Your task to perform on an android device: What's on my calendar tomorrow? Image 0: 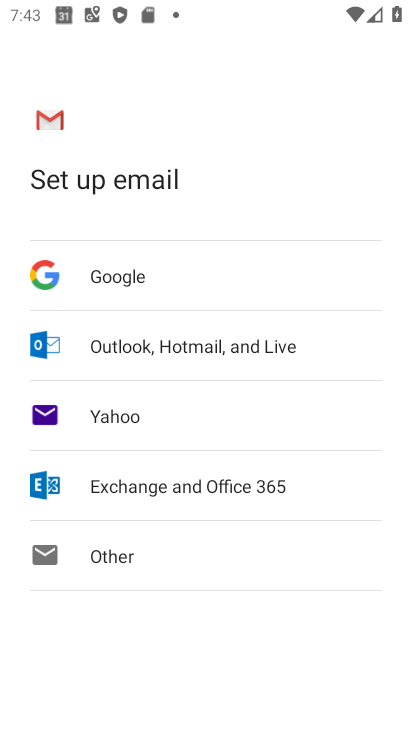
Step 0: press home button
Your task to perform on an android device: What's on my calendar tomorrow? Image 1: 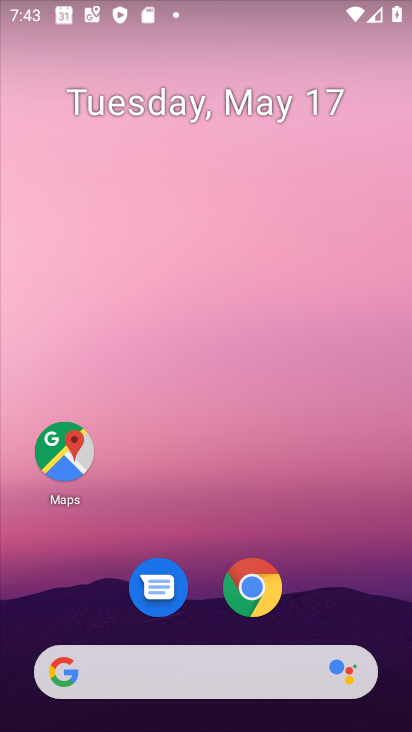
Step 1: drag from (229, 646) to (249, 330)
Your task to perform on an android device: What's on my calendar tomorrow? Image 2: 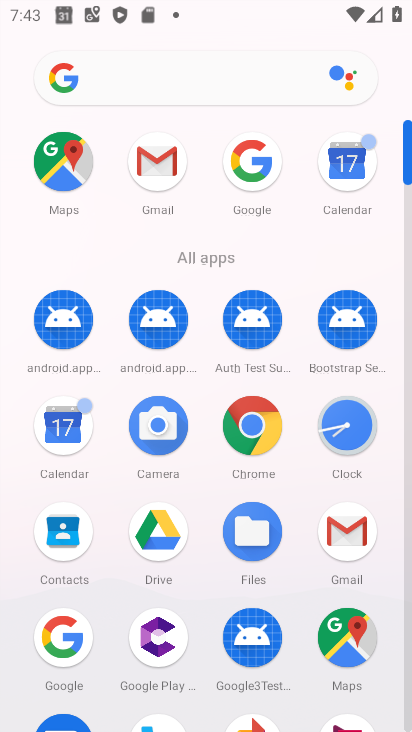
Step 2: click (329, 166)
Your task to perform on an android device: What's on my calendar tomorrow? Image 3: 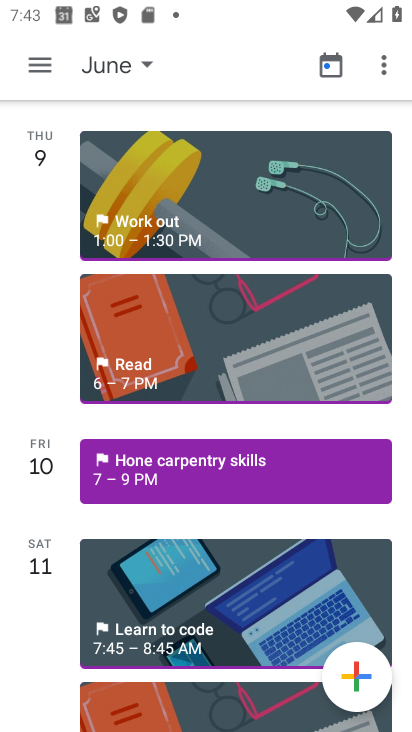
Step 3: click (102, 59)
Your task to perform on an android device: What's on my calendar tomorrow? Image 4: 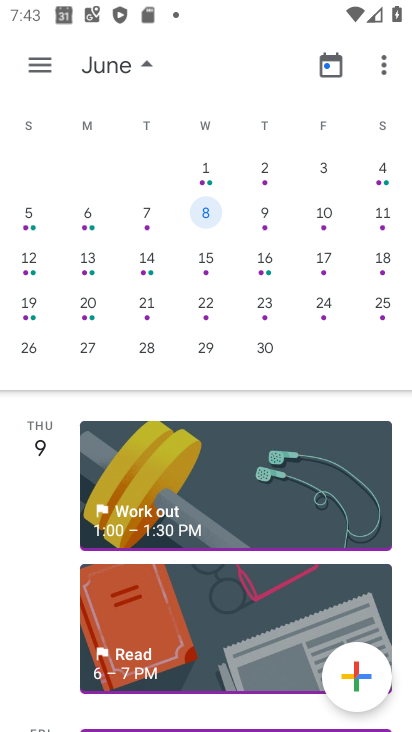
Step 4: drag from (158, 291) to (396, 296)
Your task to perform on an android device: What's on my calendar tomorrow? Image 5: 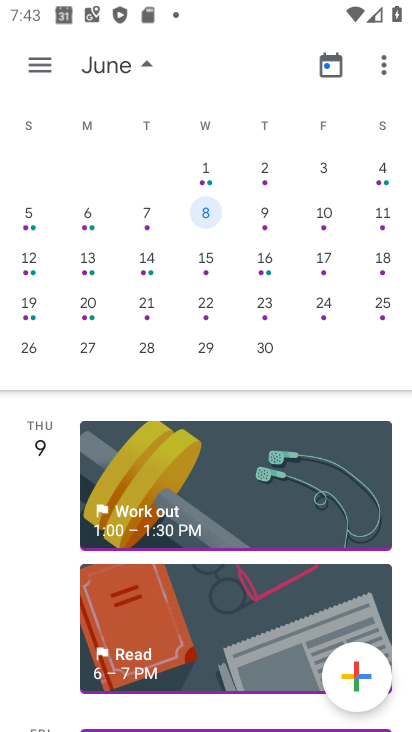
Step 5: drag from (193, 293) to (407, 297)
Your task to perform on an android device: What's on my calendar tomorrow? Image 6: 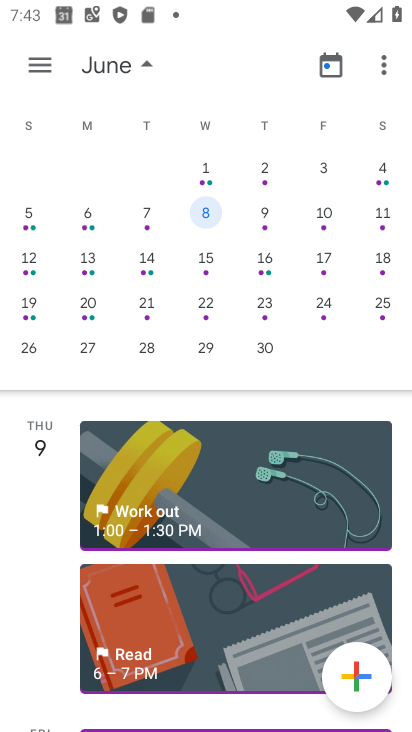
Step 6: drag from (66, 262) to (404, 263)
Your task to perform on an android device: What's on my calendar tomorrow? Image 7: 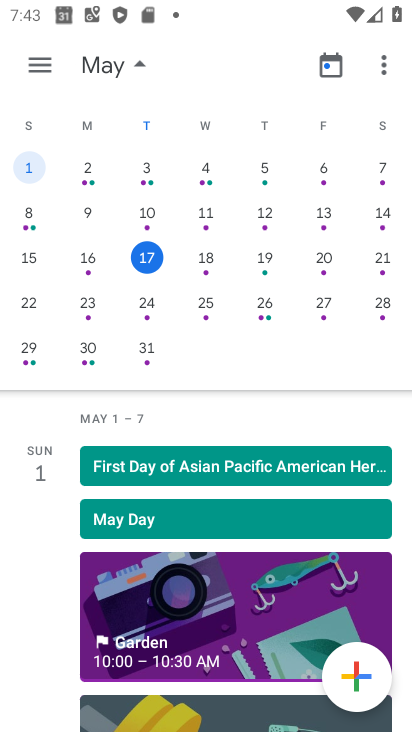
Step 7: drag from (245, 260) to (381, 254)
Your task to perform on an android device: What's on my calendar tomorrow? Image 8: 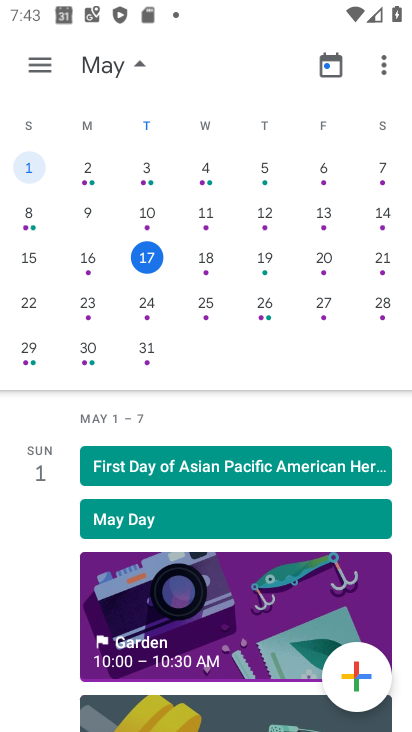
Step 8: click (264, 261)
Your task to perform on an android device: What's on my calendar tomorrow? Image 9: 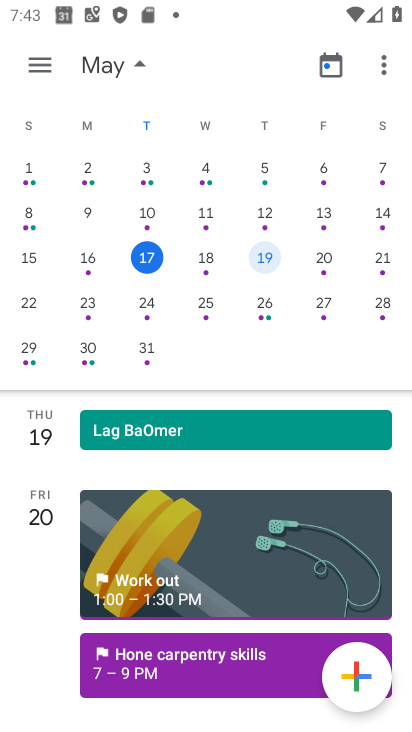
Step 9: click (113, 429)
Your task to perform on an android device: What's on my calendar tomorrow? Image 10: 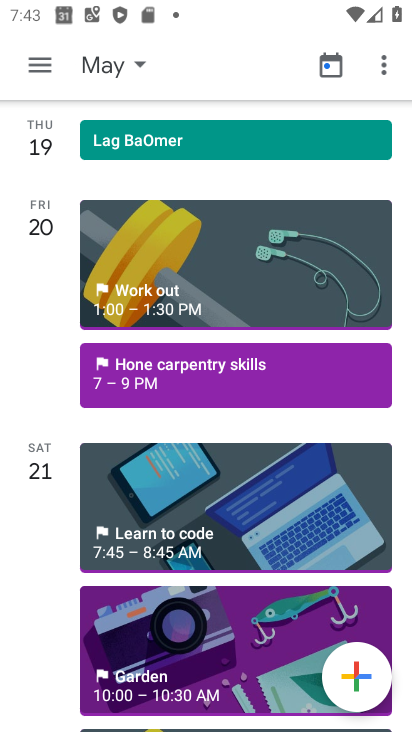
Step 10: click (228, 140)
Your task to perform on an android device: What's on my calendar tomorrow? Image 11: 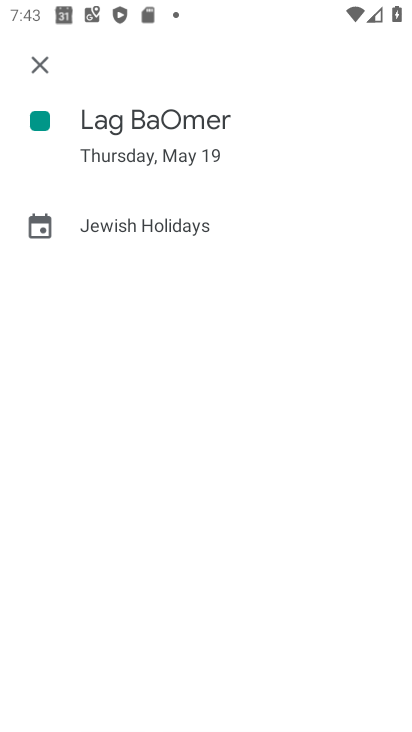
Step 11: task complete